Your task to perform on an android device: Play the last video I watched on Youtube Image 0: 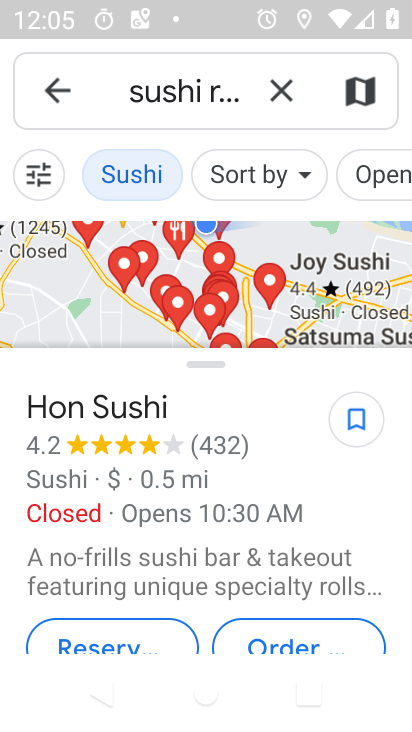
Step 0: press home button
Your task to perform on an android device: Play the last video I watched on Youtube Image 1: 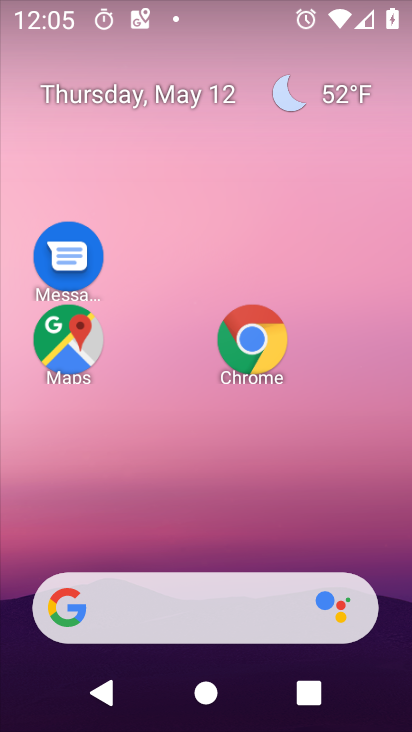
Step 1: drag from (220, 493) to (159, 43)
Your task to perform on an android device: Play the last video I watched on Youtube Image 2: 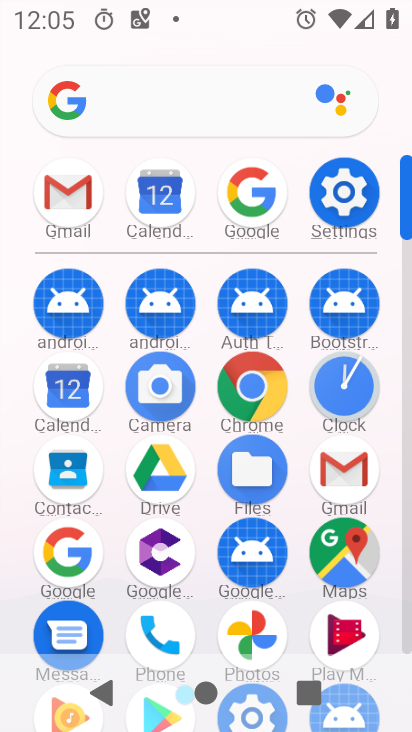
Step 2: drag from (211, 514) to (235, 94)
Your task to perform on an android device: Play the last video I watched on Youtube Image 3: 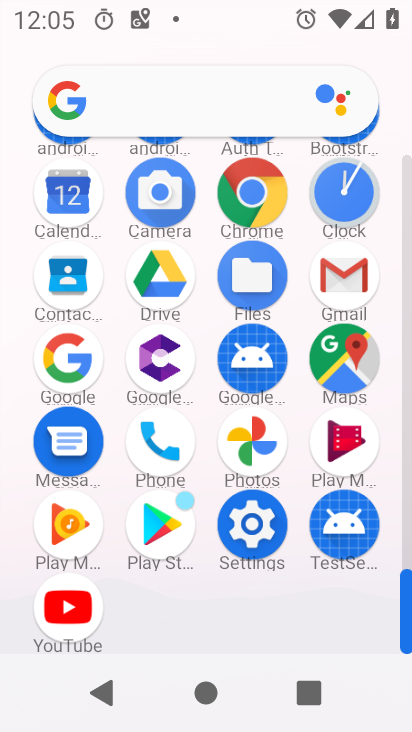
Step 3: click (70, 612)
Your task to perform on an android device: Play the last video I watched on Youtube Image 4: 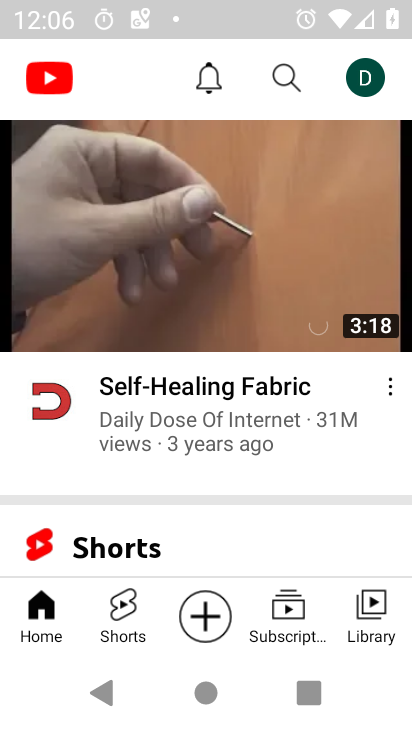
Step 4: click (286, 74)
Your task to perform on an android device: Play the last video I watched on Youtube Image 5: 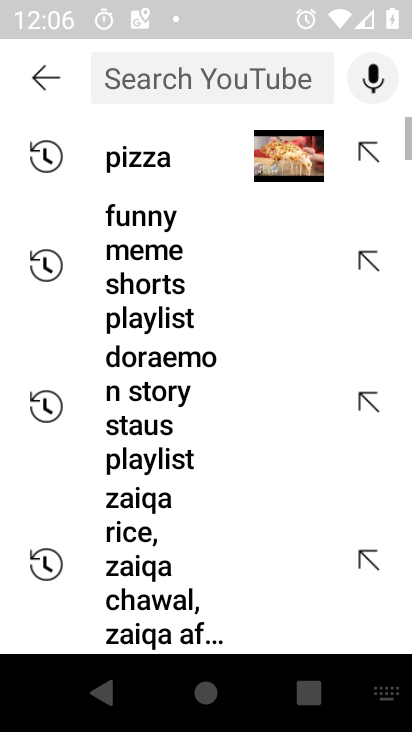
Step 5: click (195, 163)
Your task to perform on an android device: Play the last video I watched on Youtube Image 6: 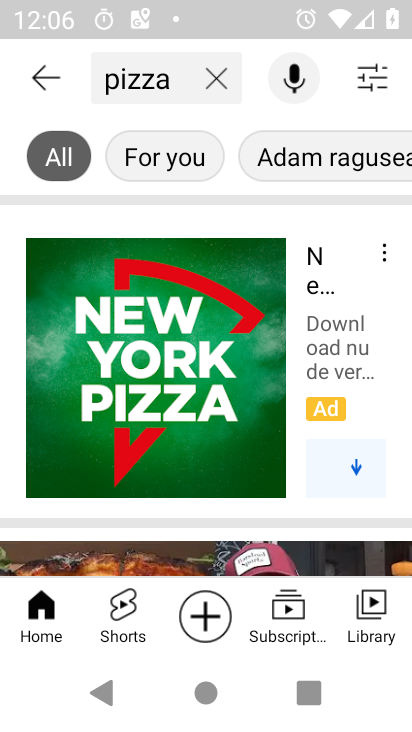
Step 6: task complete